Your task to perform on an android device: Open Reddit.com Image 0: 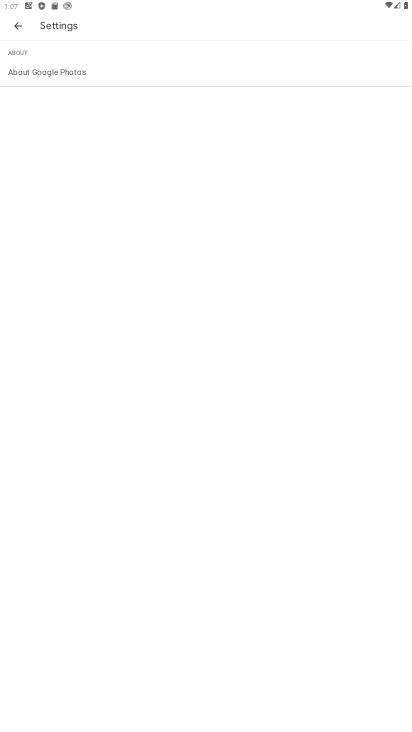
Step 0: press home button
Your task to perform on an android device: Open Reddit.com Image 1: 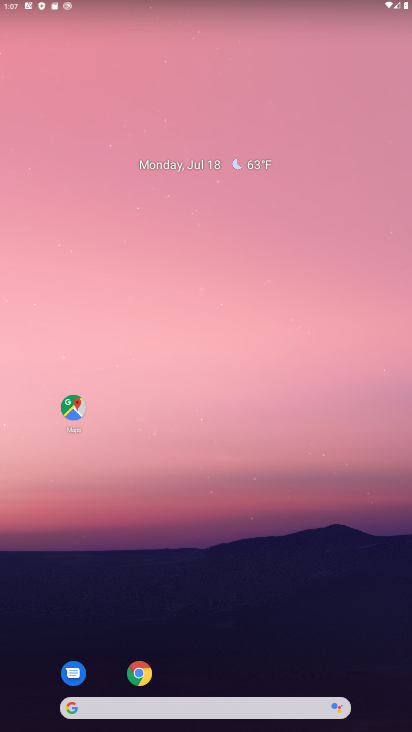
Step 1: click (141, 677)
Your task to perform on an android device: Open Reddit.com Image 2: 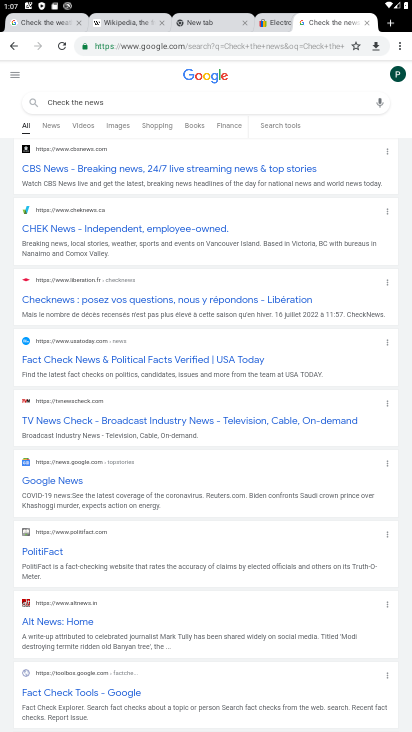
Step 2: drag from (197, 668) to (163, 329)
Your task to perform on an android device: Open Reddit.com Image 3: 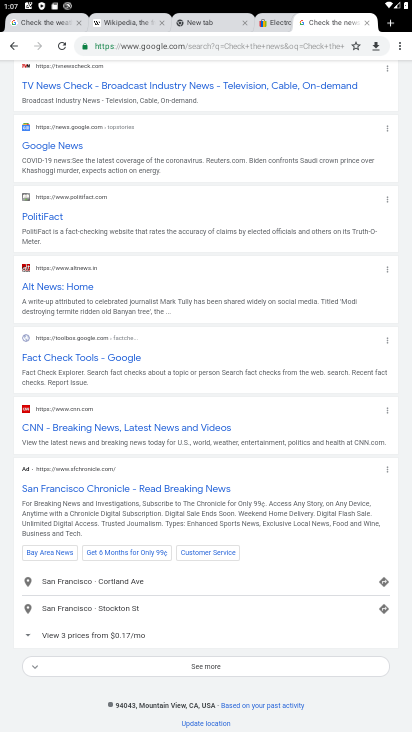
Step 3: click (389, 20)
Your task to perform on an android device: Open Reddit.com Image 4: 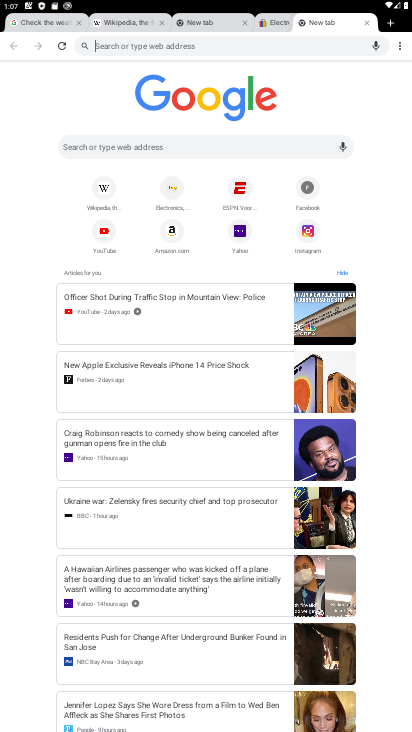
Step 4: click (182, 153)
Your task to perform on an android device: Open Reddit.com Image 5: 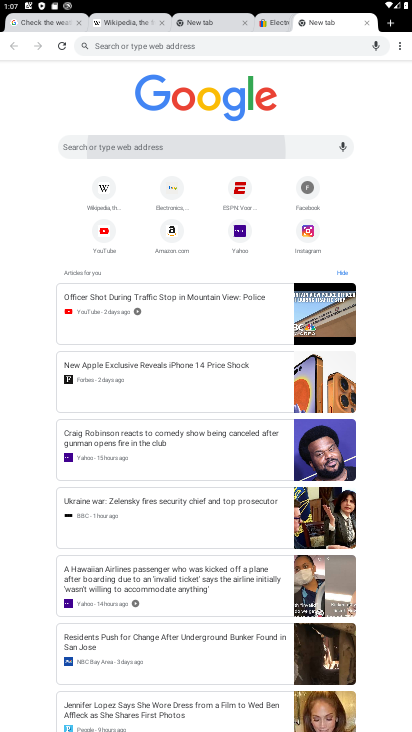
Step 5: click (182, 149)
Your task to perform on an android device: Open Reddit.com Image 6: 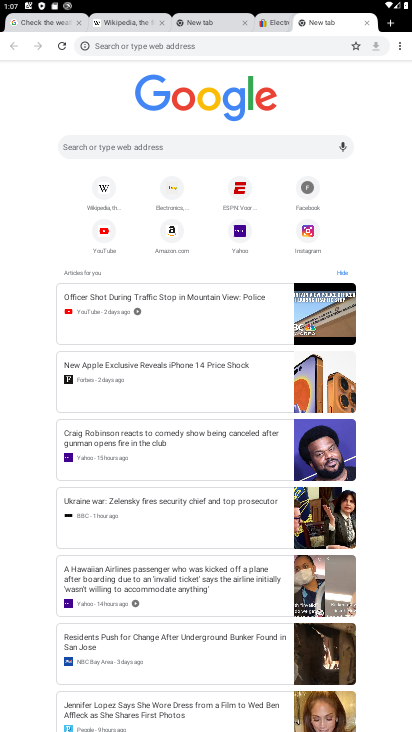
Step 6: type "Reddit.com "
Your task to perform on an android device: Open Reddit.com Image 7: 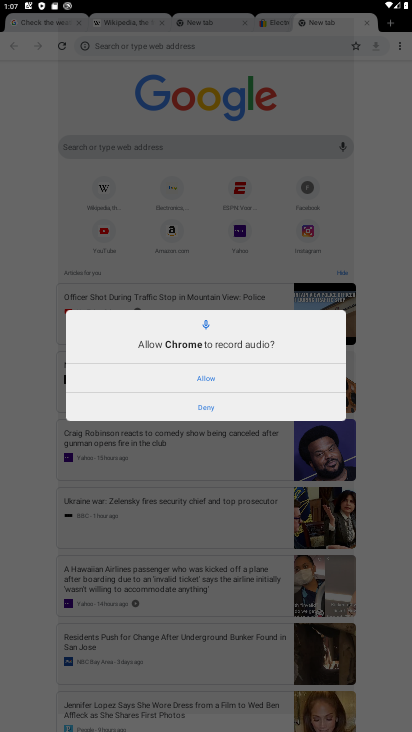
Step 7: click (405, 153)
Your task to perform on an android device: Open Reddit.com Image 8: 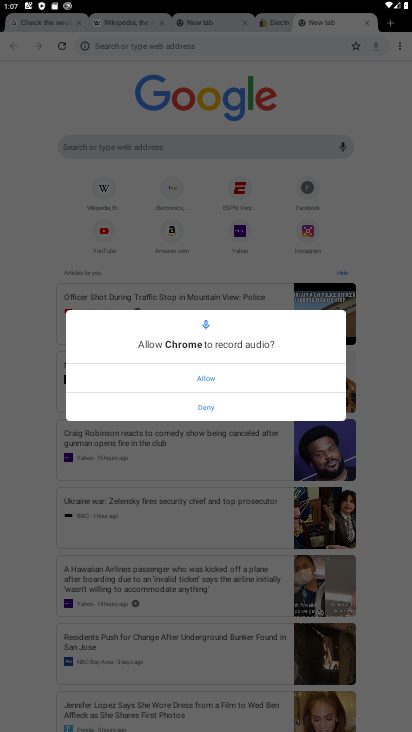
Step 8: click (245, 403)
Your task to perform on an android device: Open Reddit.com Image 9: 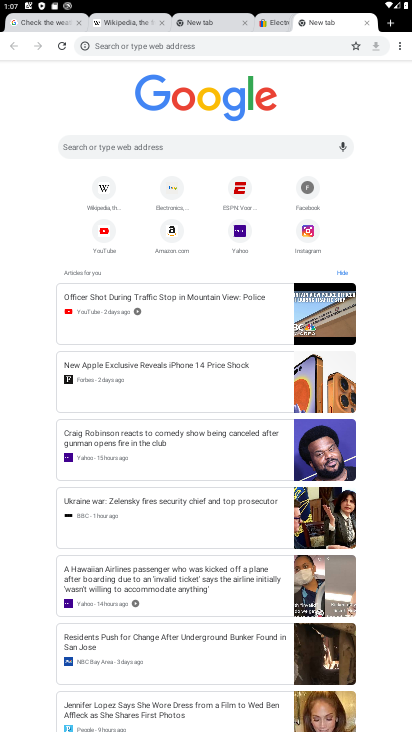
Step 9: click (192, 140)
Your task to perform on an android device: Open Reddit.com Image 10: 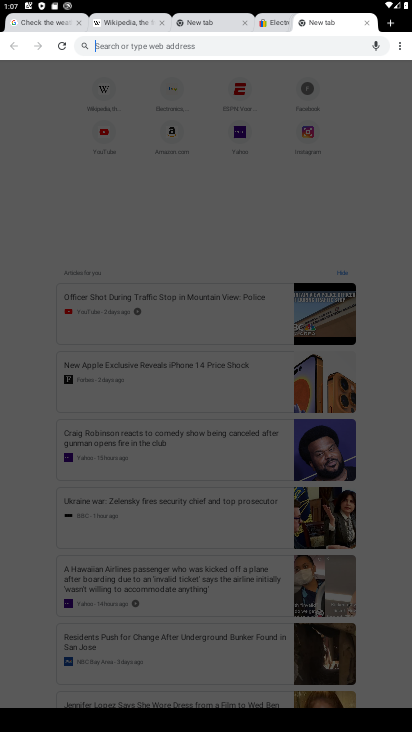
Step 10: type "Reddit.com "
Your task to perform on an android device: Open Reddit.com Image 11: 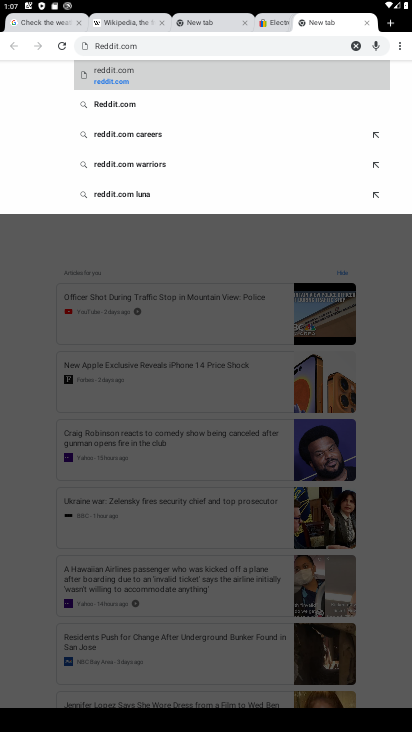
Step 11: click (141, 79)
Your task to perform on an android device: Open Reddit.com Image 12: 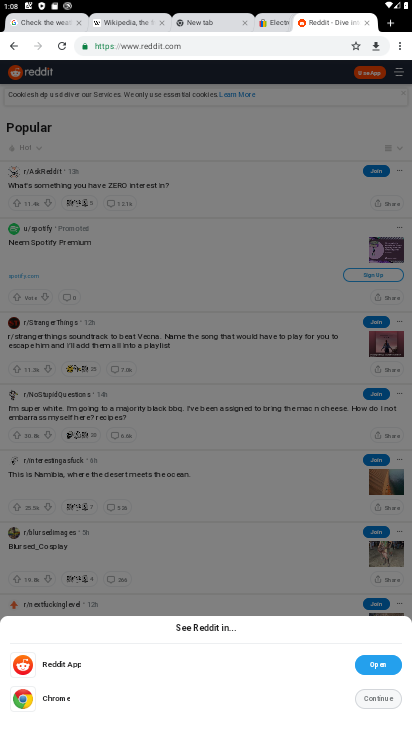
Step 12: click (374, 670)
Your task to perform on an android device: Open Reddit.com Image 13: 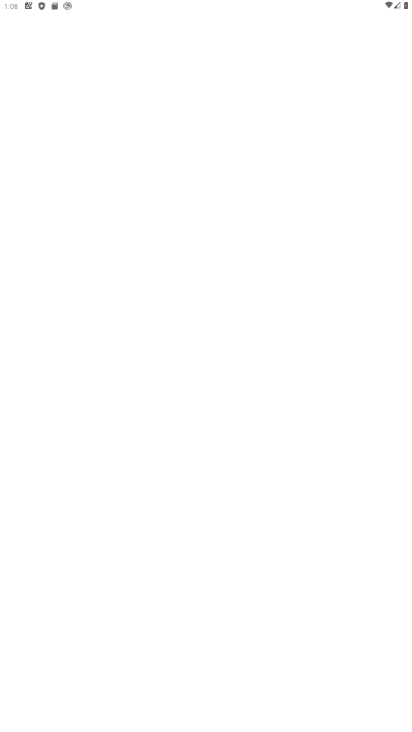
Step 13: task complete